Your task to perform on an android device: Open ESPN.com Image 0: 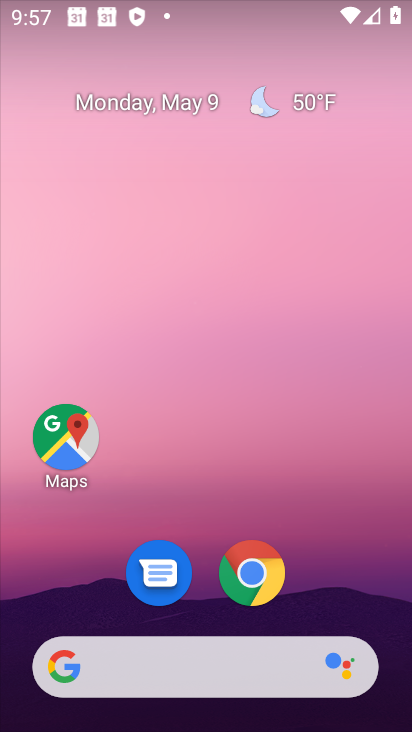
Step 0: click (253, 571)
Your task to perform on an android device: Open ESPN.com Image 1: 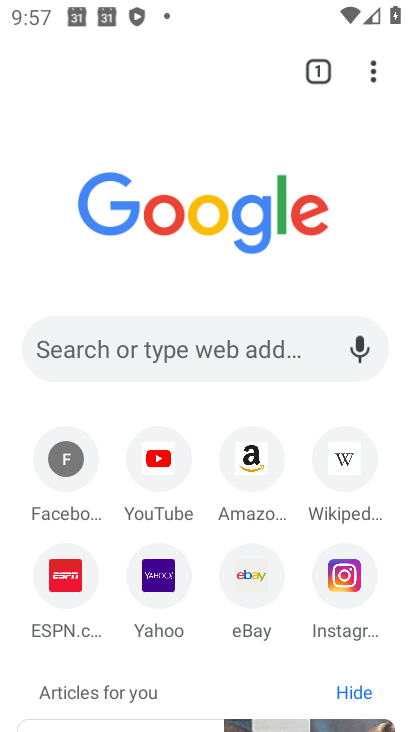
Step 1: click (59, 589)
Your task to perform on an android device: Open ESPN.com Image 2: 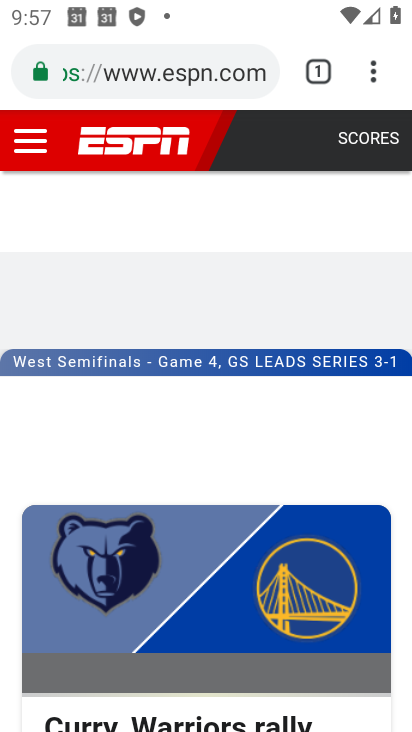
Step 2: task complete